Your task to perform on an android device: Search for "amazon basics triple a" on ebay.com, select the first entry, add it to the cart, then select checkout. Image 0: 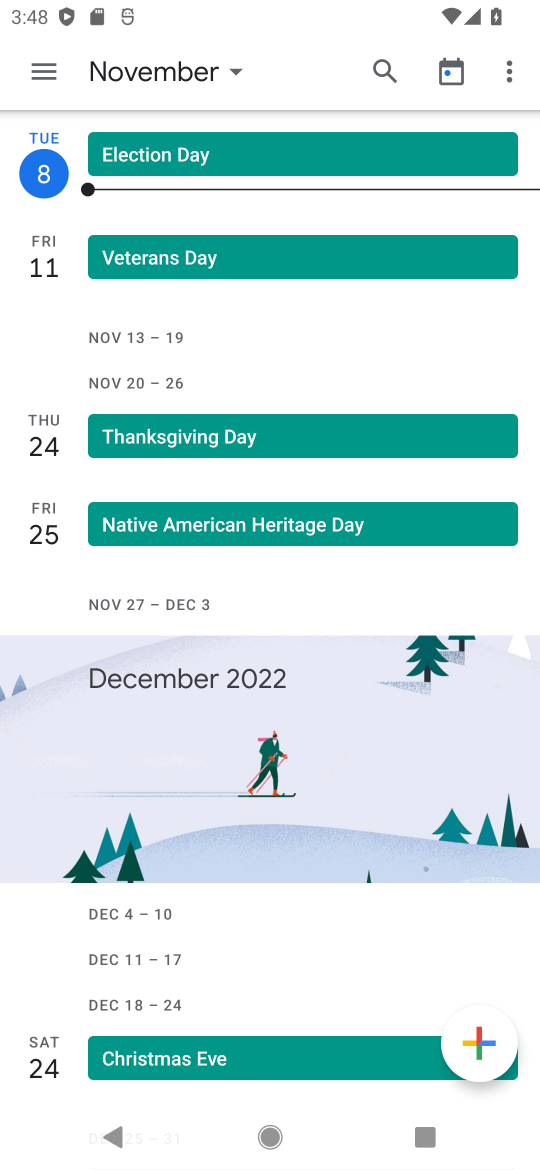
Step 0: press home button
Your task to perform on an android device: Search for "amazon basics triple a" on ebay.com, select the first entry, add it to the cart, then select checkout. Image 1: 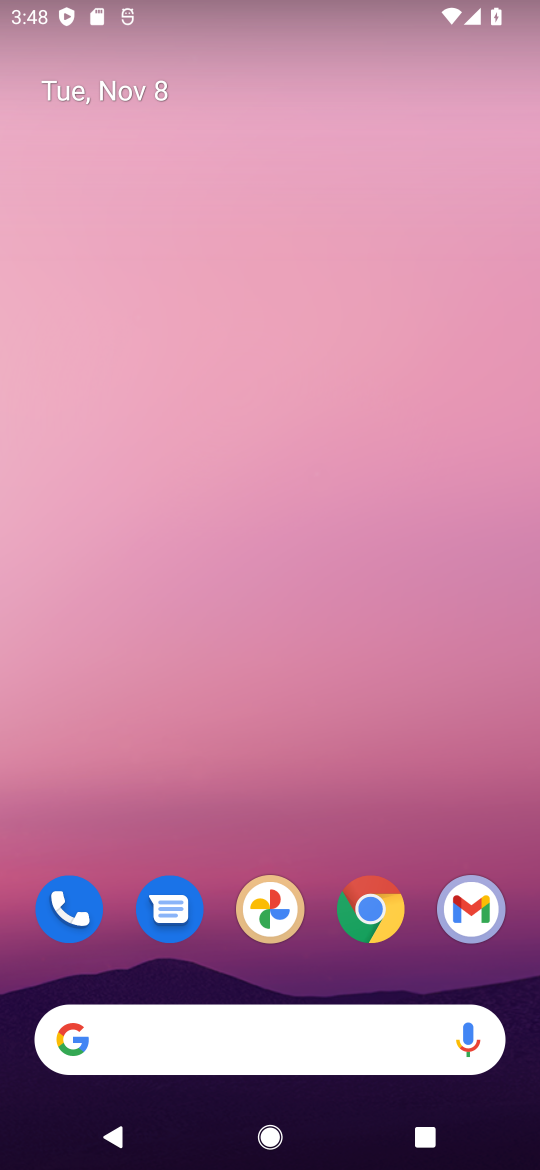
Step 1: click (365, 909)
Your task to perform on an android device: Search for "amazon basics triple a" on ebay.com, select the first entry, add it to the cart, then select checkout. Image 2: 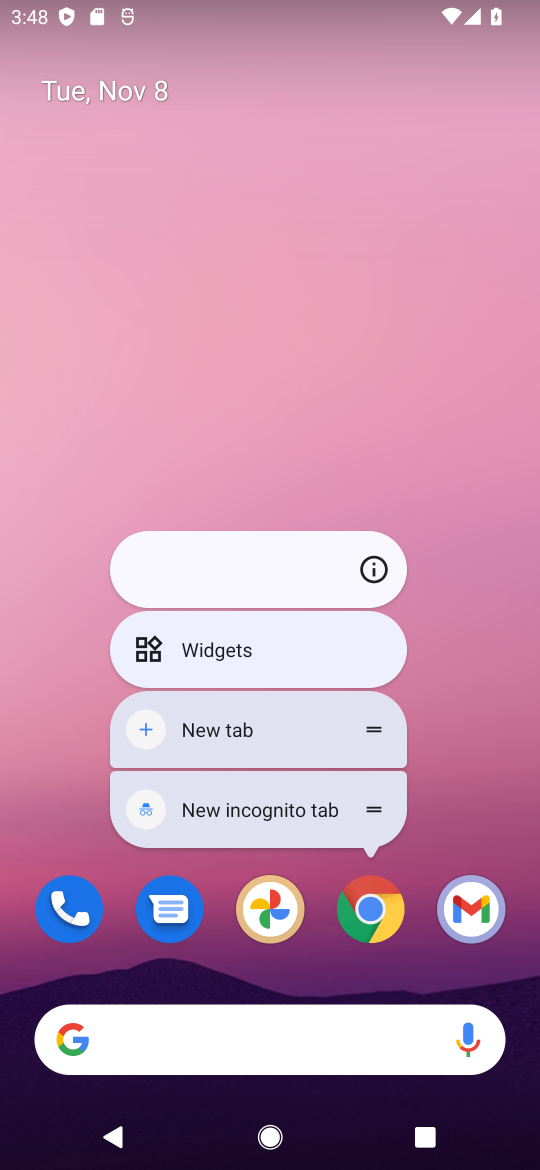
Step 2: click (365, 908)
Your task to perform on an android device: Search for "amazon basics triple a" on ebay.com, select the first entry, add it to the cart, then select checkout. Image 3: 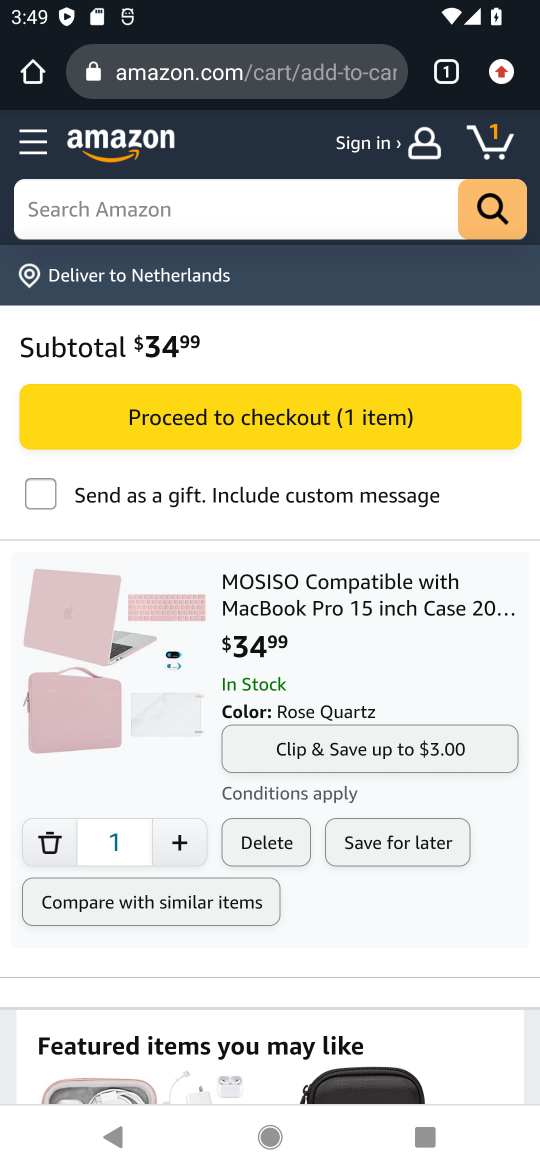
Step 3: click (308, 65)
Your task to perform on an android device: Search for "amazon basics triple a" on ebay.com, select the first entry, add it to the cart, then select checkout. Image 4: 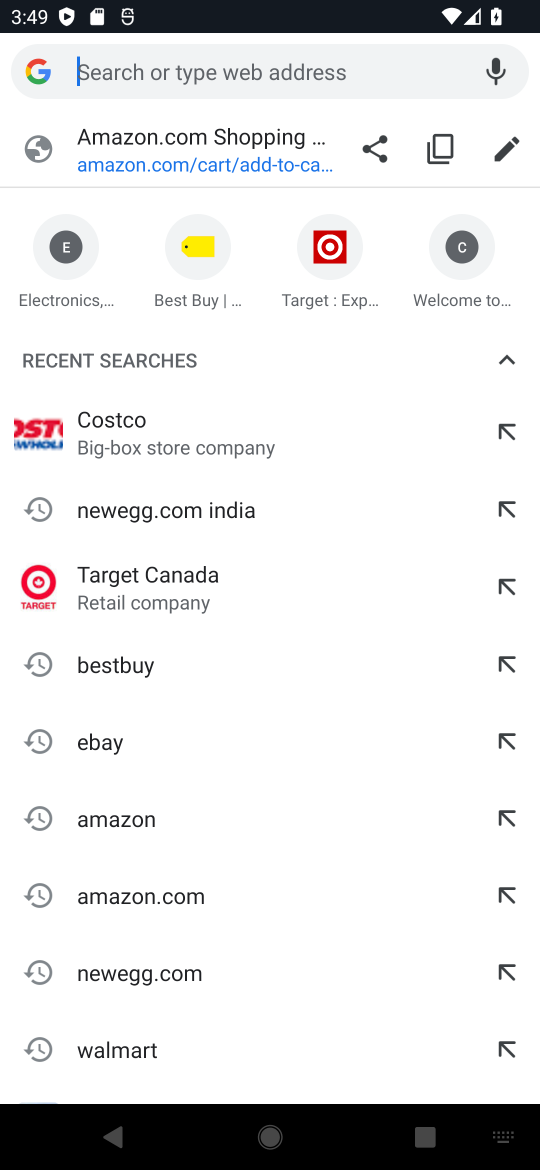
Step 4: click (92, 737)
Your task to perform on an android device: Search for "amazon basics triple a" on ebay.com, select the first entry, add it to the cart, then select checkout. Image 5: 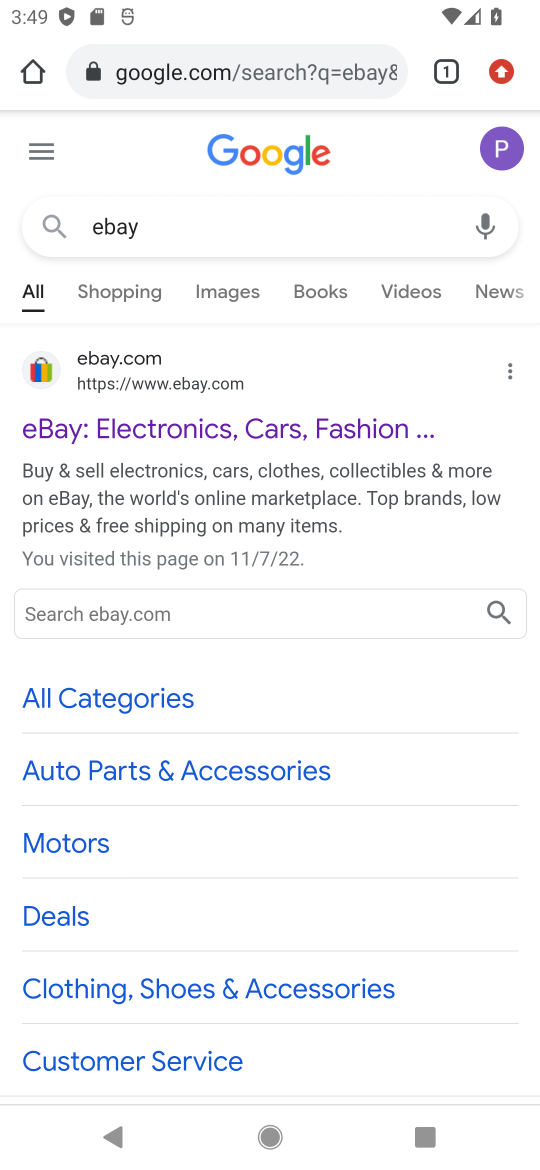
Step 5: click (200, 432)
Your task to perform on an android device: Search for "amazon basics triple a" on ebay.com, select the first entry, add it to the cart, then select checkout. Image 6: 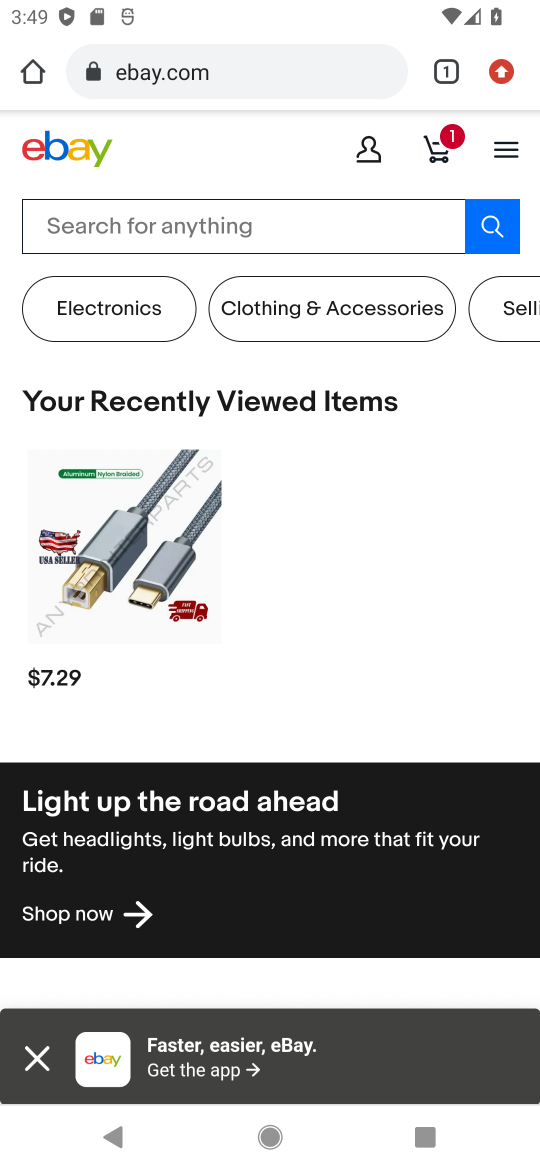
Step 6: click (311, 207)
Your task to perform on an android device: Search for "amazon basics triple a" on ebay.com, select the first entry, add it to the cart, then select checkout. Image 7: 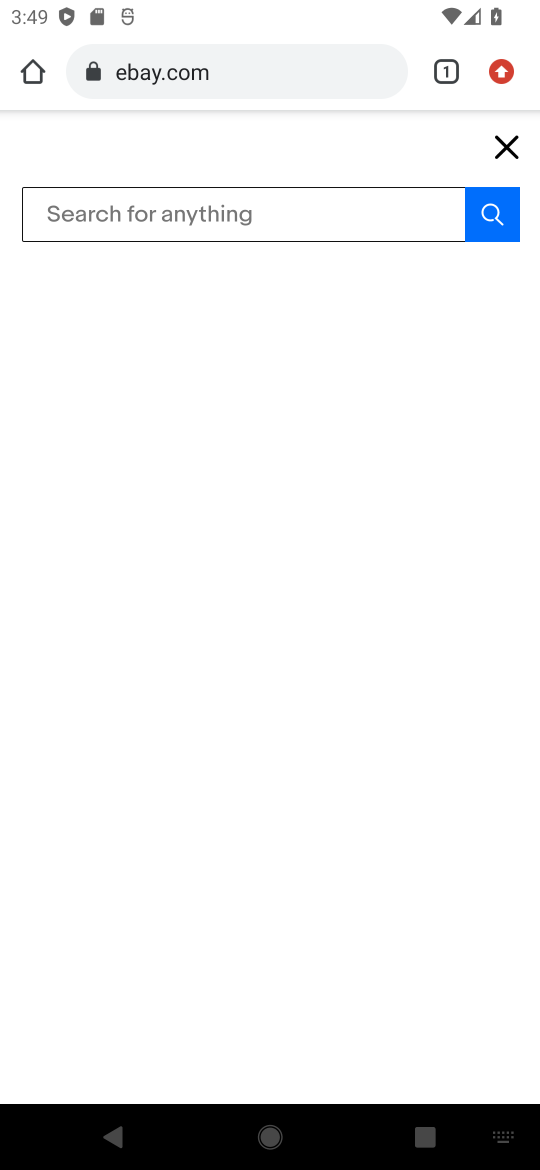
Step 7: type "amazon basics triple a"
Your task to perform on an android device: Search for "amazon basics triple a" on ebay.com, select the first entry, add it to the cart, then select checkout. Image 8: 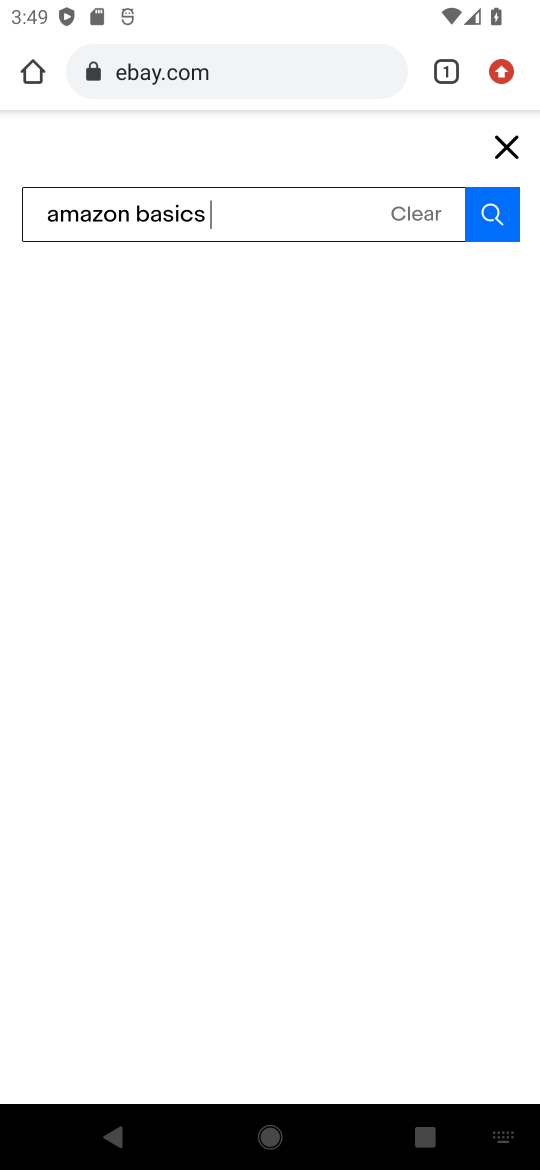
Step 8: press enter
Your task to perform on an android device: Search for "amazon basics triple a" on ebay.com, select the first entry, add it to the cart, then select checkout. Image 9: 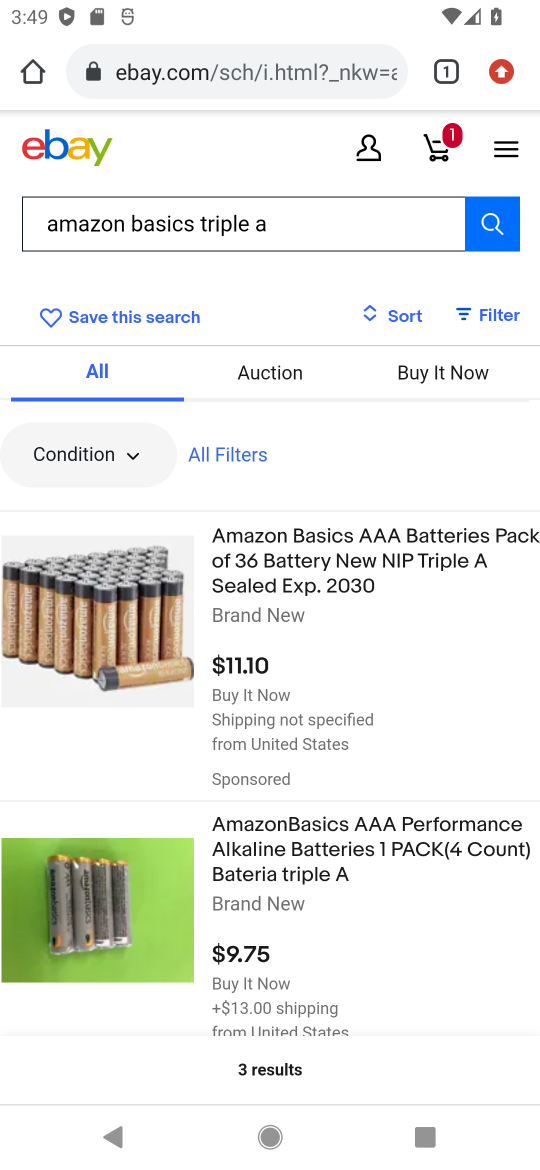
Step 9: click (349, 574)
Your task to perform on an android device: Search for "amazon basics triple a" on ebay.com, select the first entry, add it to the cart, then select checkout. Image 10: 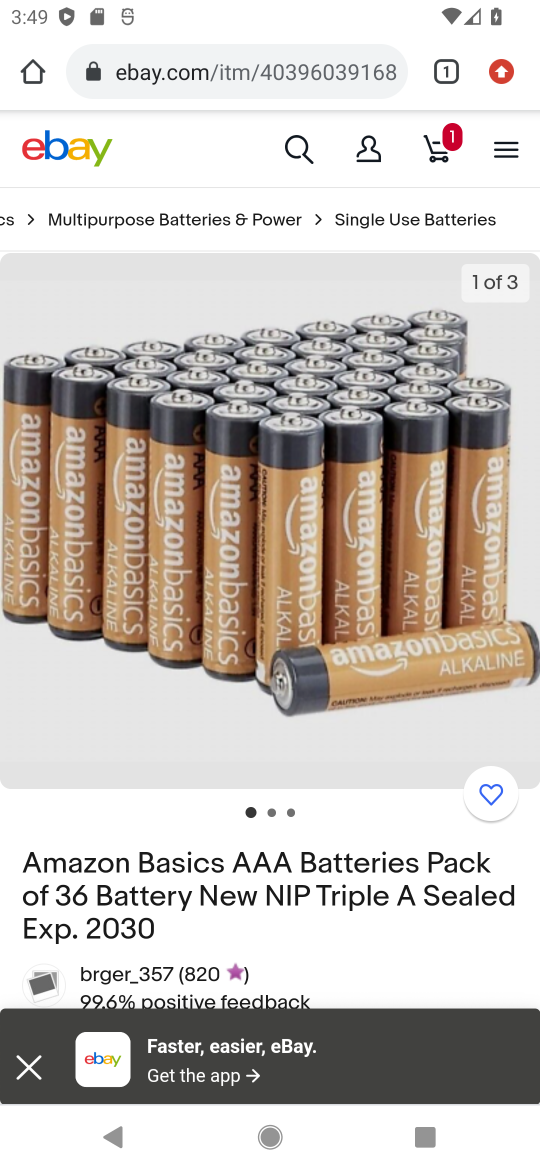
Step 10: drag from (285, 938) to (533, 283)
Your task to perform on an android device: Search for "amazon basics triple a" on ebay.com, select the first entry, add it to the cart, then select checkout. Image 11: 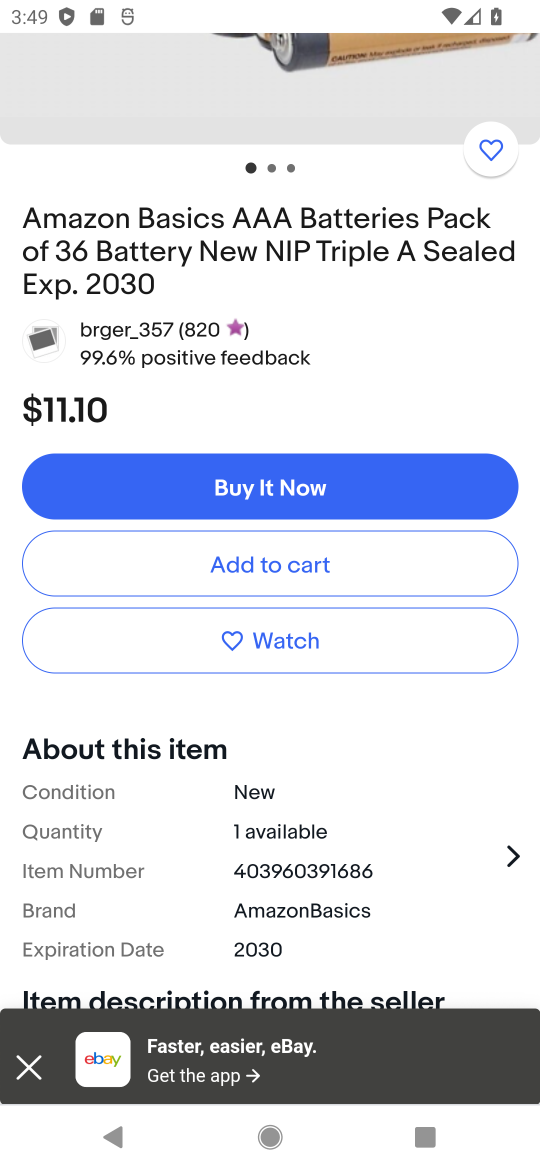
Step 11: click (300, 564)
Your task to perform on an android device: Search for "amazon basics triple a" on ebay.com, select the first entry, add it to the cart, then select checkout. Image 12: 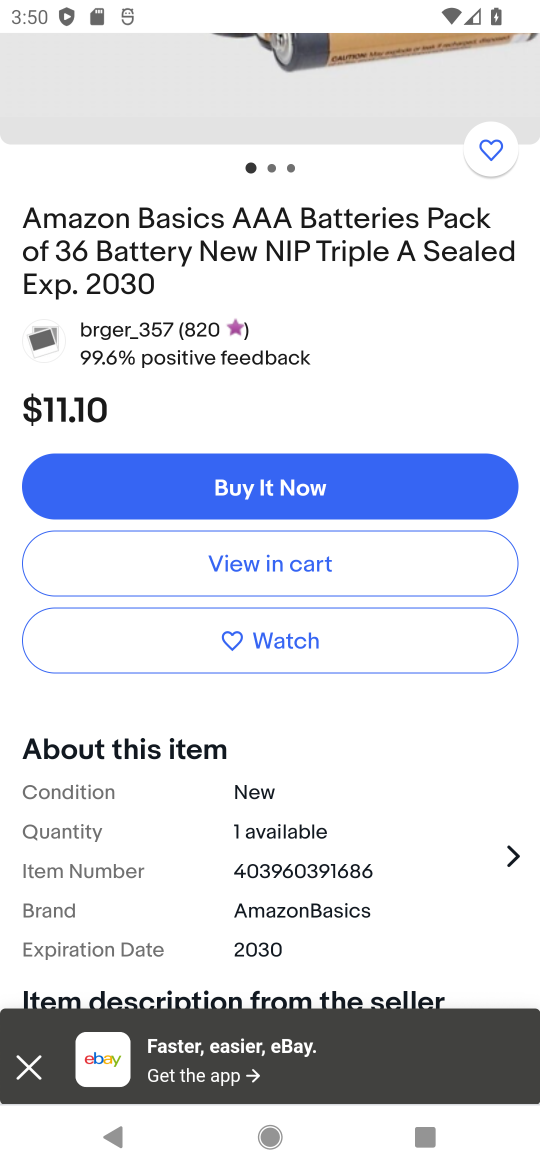
Step 12: click (280, 560)
Your task to perform on an android device: Search for "amazon basics triple a" on ebay.com, select the first entry, add it to the cart, then select checkout. Image 13: 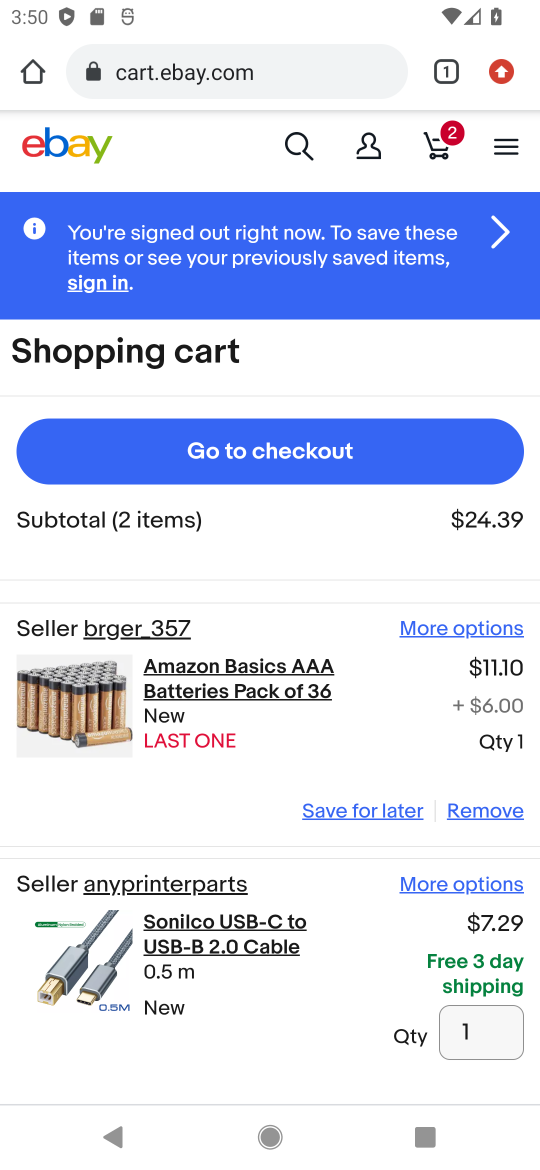
Step 13: drag from (349, 955) to (416, 556)
Your task to perform on an android device: Search for "amazon basics triple a" on ebay.com, select the first entry, add it to the cart, then select checkout. Image 14: 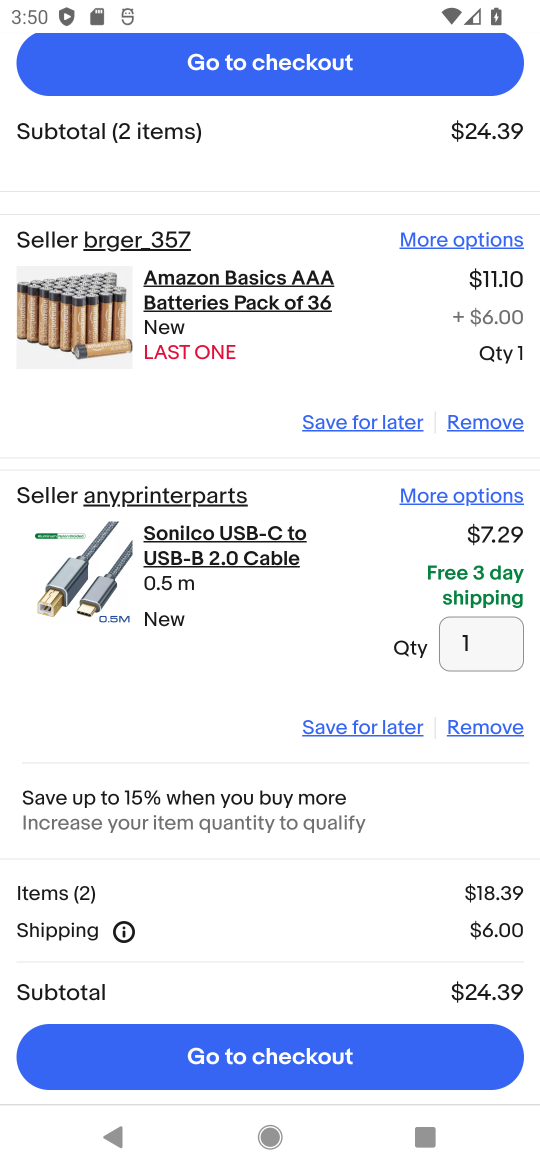
Step 14: click (493, 720)
Your task to perform on an android device: Search for "amazon basics triple a" on ebay.com, select the first entry, add it to the cart, then select checkout. Image 15: 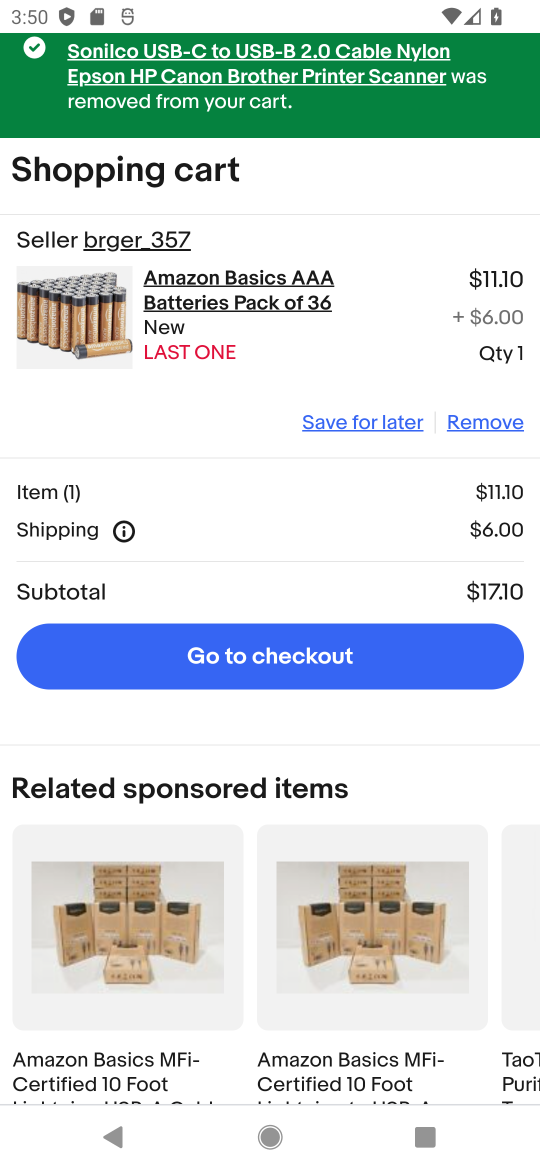
Step 15: click (268, 657)
Your task to perform on an android device: Search for "amazon basics triple a" on ebay.com, select the first entry, add it to the cart, then select checkout. Image 16: 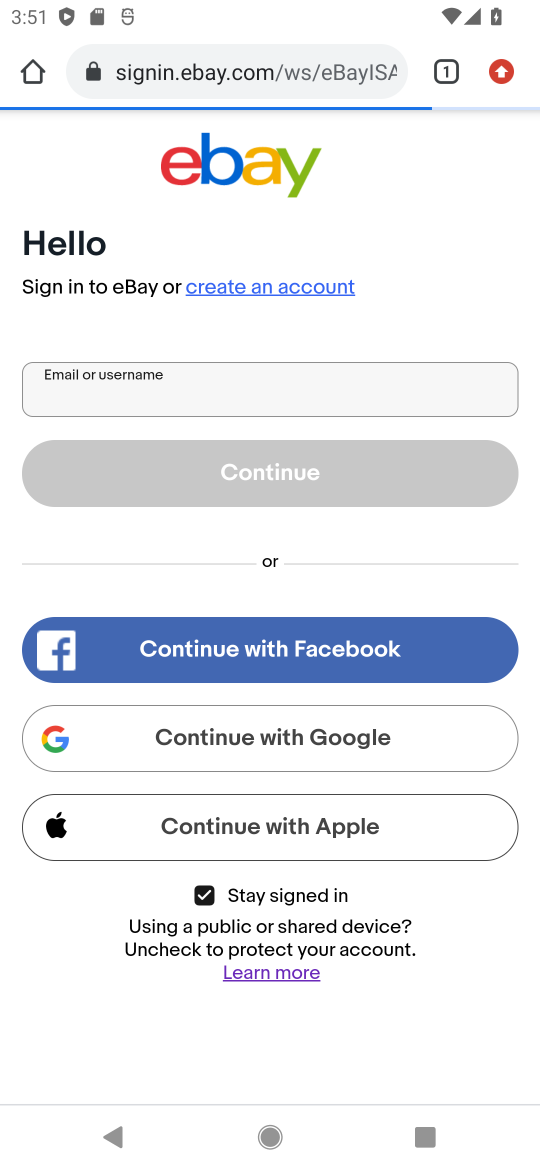
Step 16: task complete